Your task to perform on an android device: Go to accessibility settings Image 0: 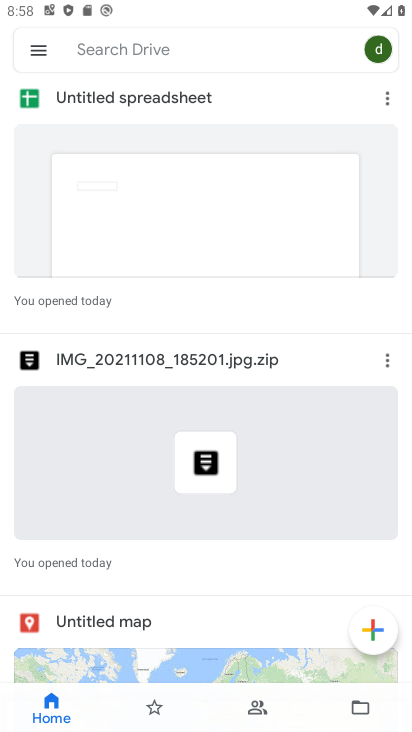
Step 0: press home button
Your task to perform on an android device: Go to accessibility settings Image 1: 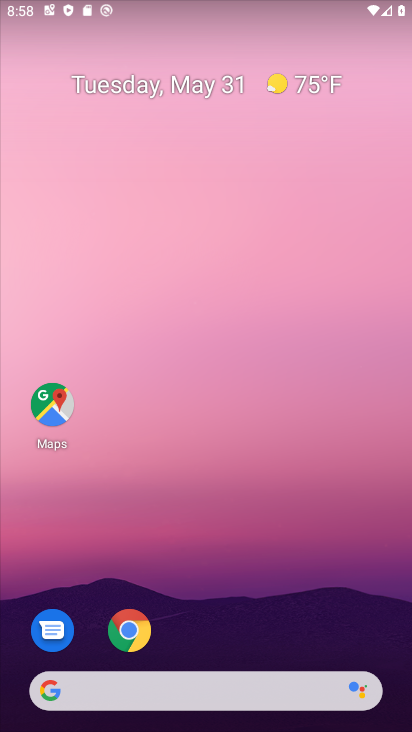
Step 1: drag from (148, 653) to (149, 261)
Your task to perform on an android device: Go to accessibility settings Image 2: 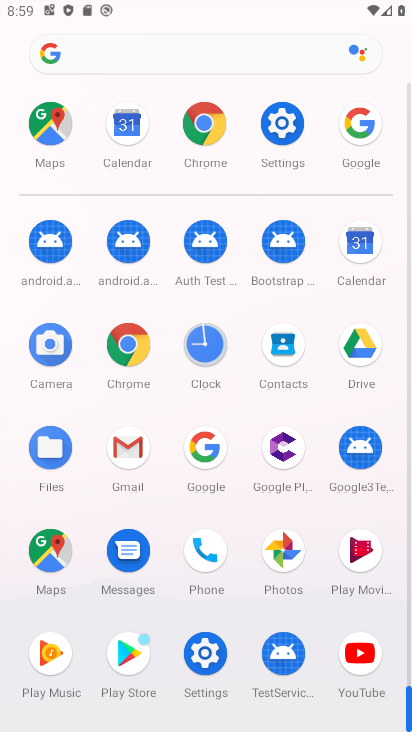
Step 2: drag from (222, 546) to (224, 277)
Your task to perform on an android device: Go to accessibility settings Image 3: 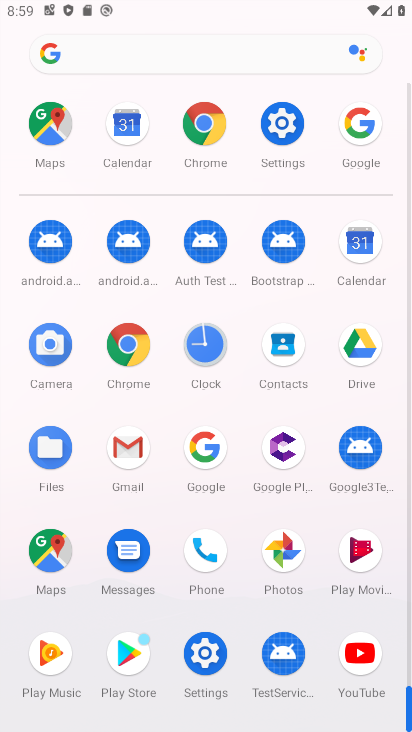
Step 3: click (207, 673)
Your task to perform on an android device: Go to accessibility settings Image 4: 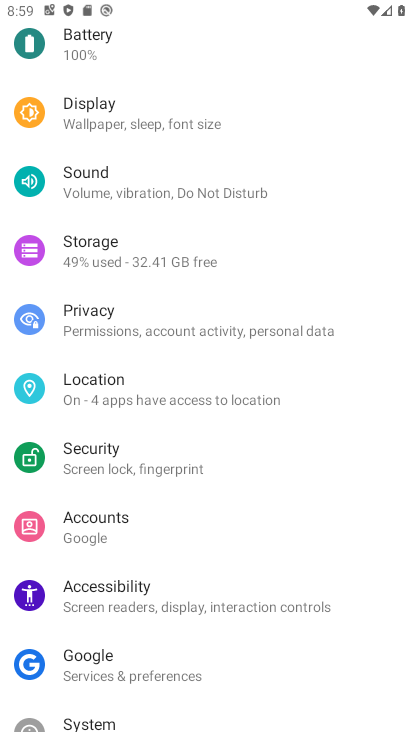
Step 4: click (181, 601)
Your task to perform on an android device: Go to accessibility settings Image 5: 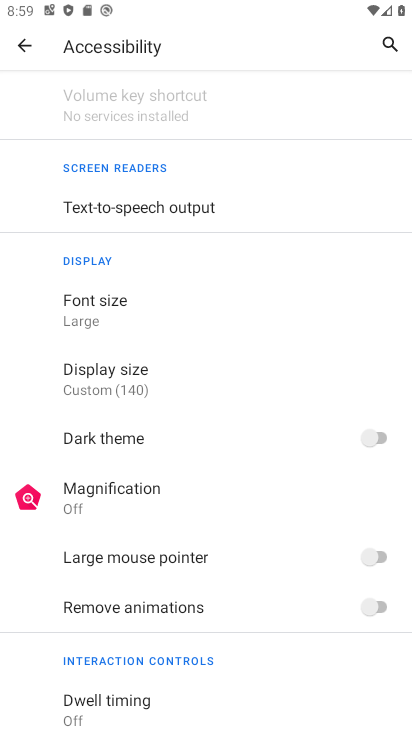
Step 5: task complete